Your task to perform on an android device: star an email in the gmail app Image 0: 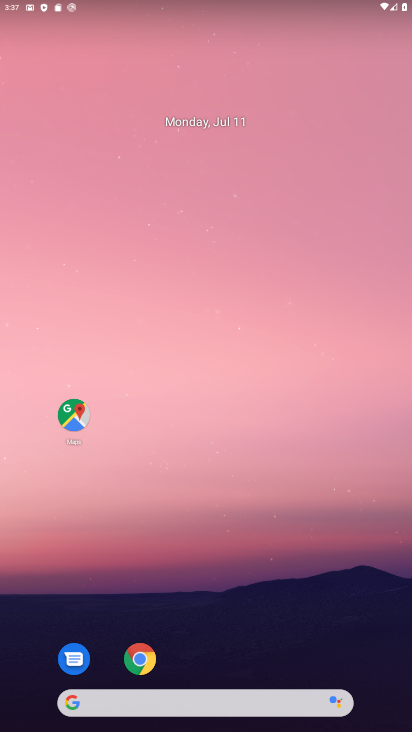
Step 0: drag from (122, 105) to (108, 0)
Your task to perform on an android device: star an email in the gmail app Image 1: 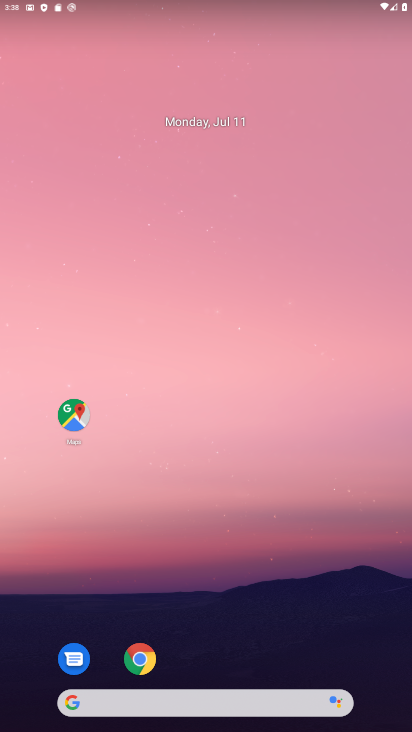
Step 1: drag from (190, 634) to (198, 113)
Your task to perform on an android device: star an email in the gmail app Image 2: 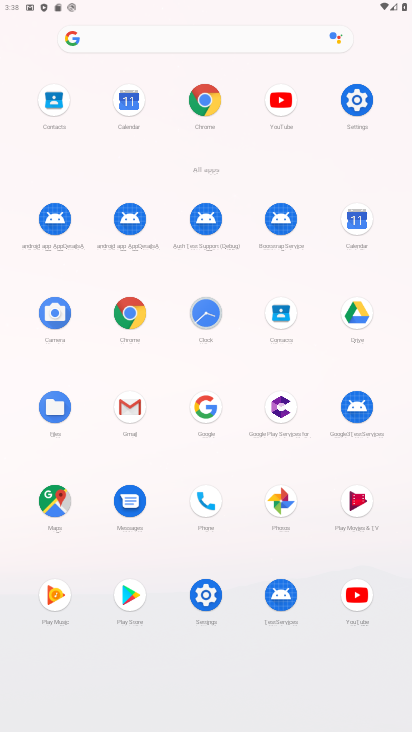
Step 2: click (128, 408)
Your task to perform on an android device: star an email in the gmail app Image 3: 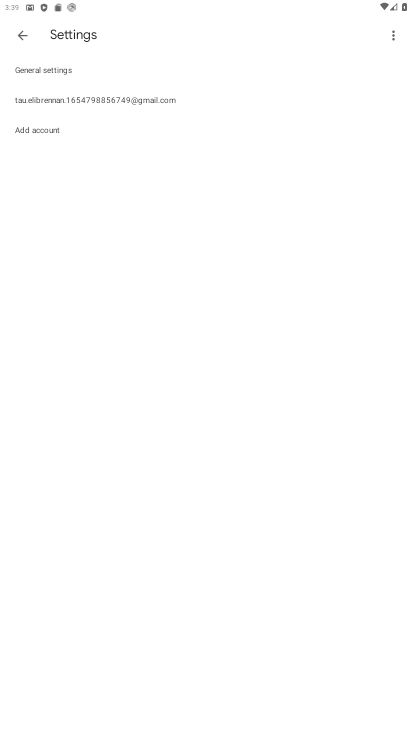
Step 3: click (165, 95)
Your task to perform on an android device: star an email in the gmail app Image 4: 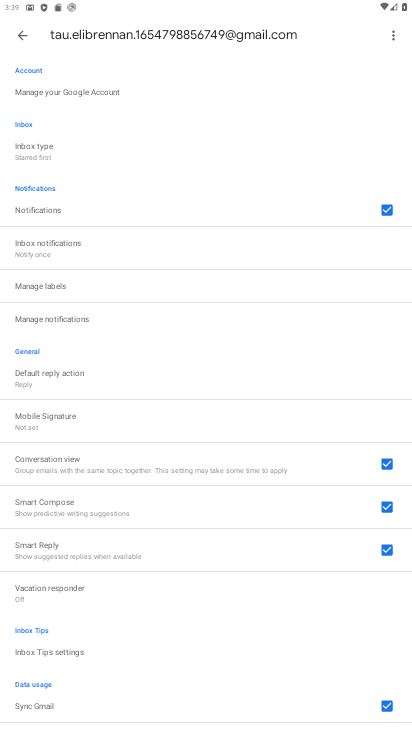
Step 4: click (18, 32)
Your task to perform on an android device: star an email in the gmail app Image 5: 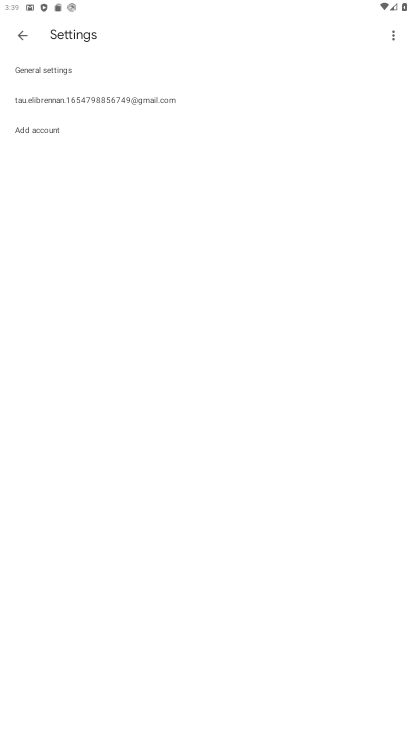
Step 5: click (22, 36)
Your task to perform on an android device: star an email in the gmail app Image 6: 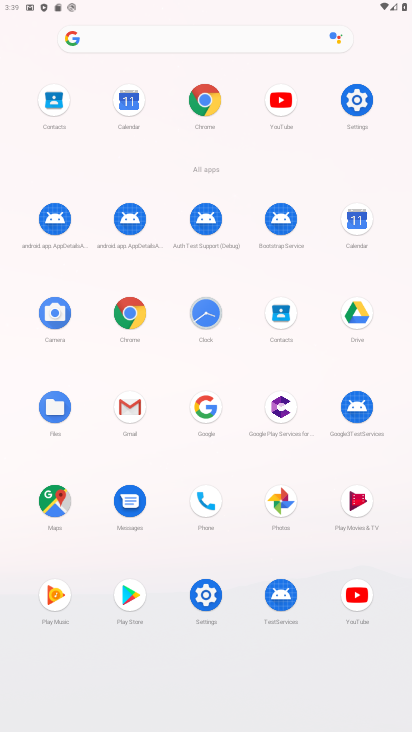
Step 6: click (141, 416)
Your task to perform on an android device: star an email in the gmail app Image 7: 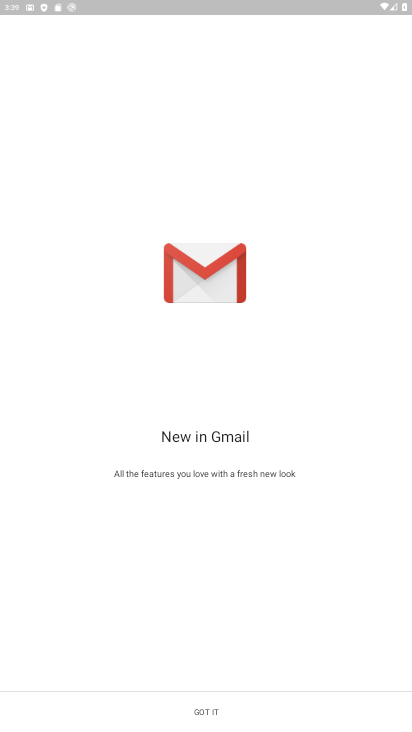
Step 7: click (228, 721)
Your task to perform on an android device: star an email in the gmail app Image 8: 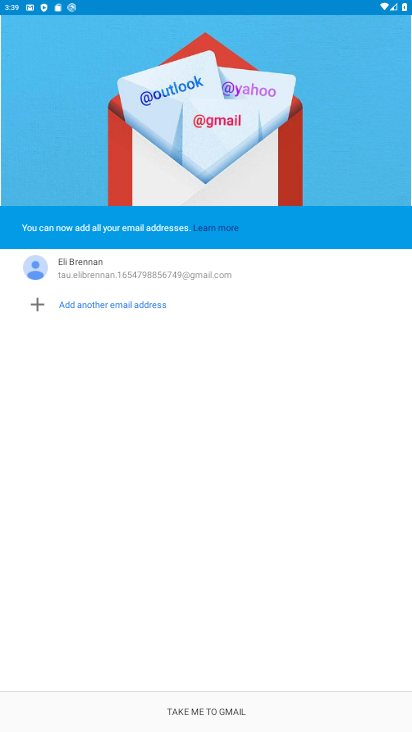
Step 8: click (205, 701)
Your task to perform on an android device: star an email in the gmail app Image 9: 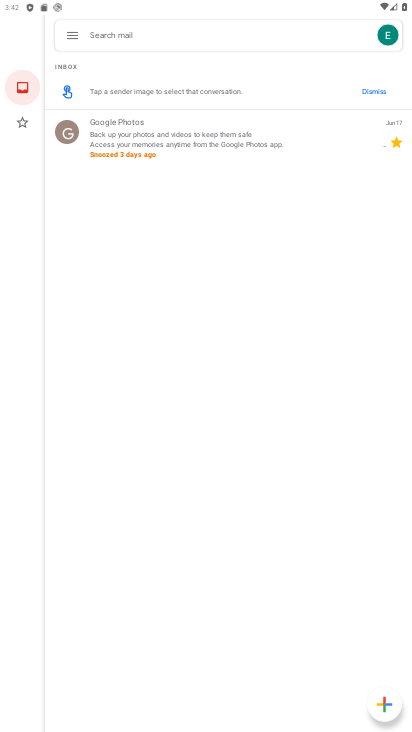
Step 9: task complete